Your task to perform on an android device: change the clock display to digital Image 0: 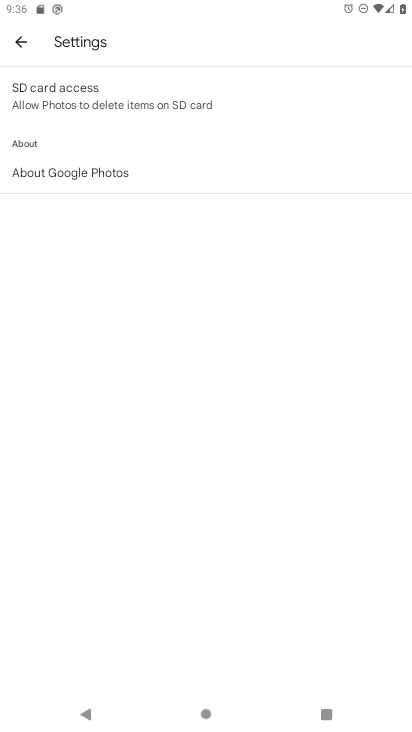
Step 0: press home button
Your task to perform on an android device: change the clock display to digital Image 1: 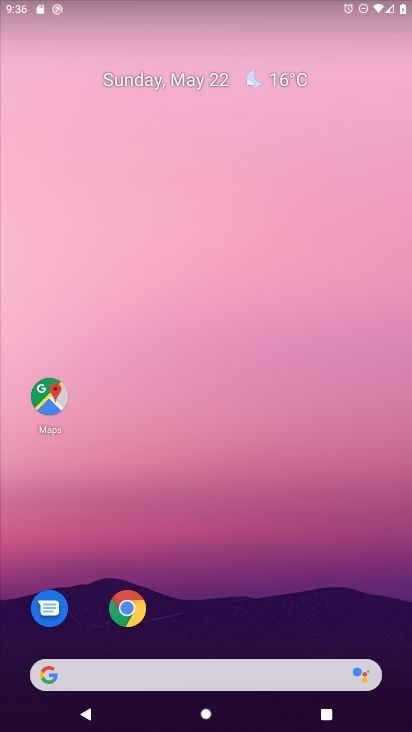
Step 1: drag from (241, 668) to (196, 133)
Your task to perform on an android device: change the clock display to digital Image 2: 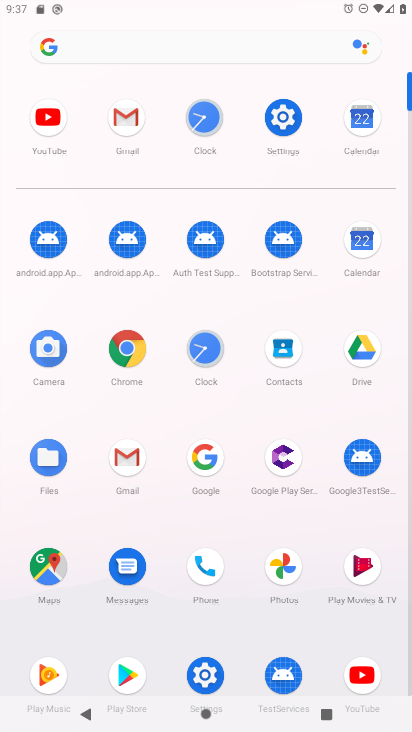
Step 2: click (205, 359)
Your task to perform on an android device: change the clock display to digital Image 3: 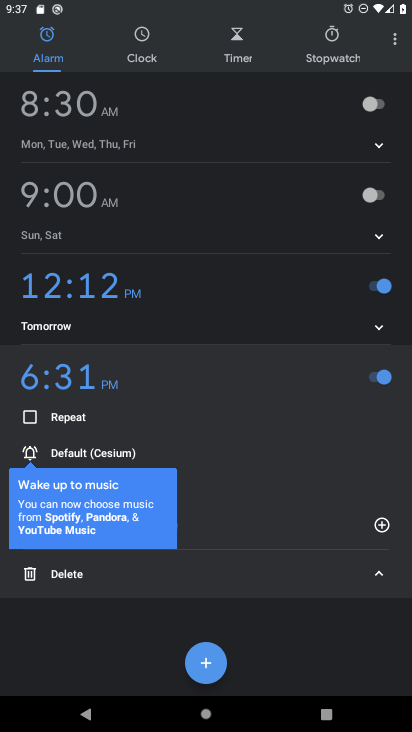
Step 3: click (396, 43)
Your task to perform on an android device: change the clock display to digital Image 4: 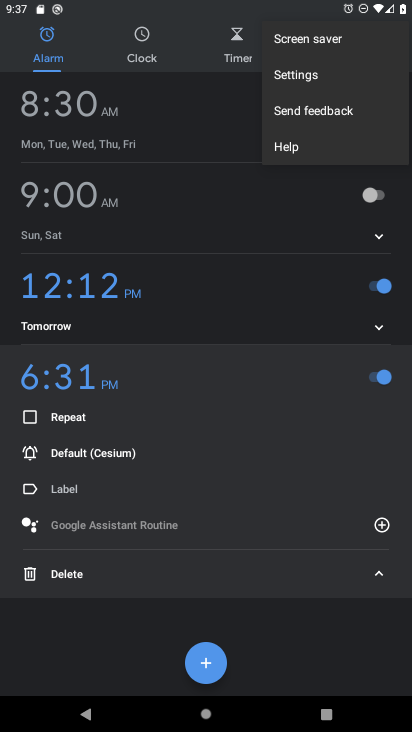
Step 4: click (301, 76)
Your task to perform on an android device: change the clock display to digital Image 5: 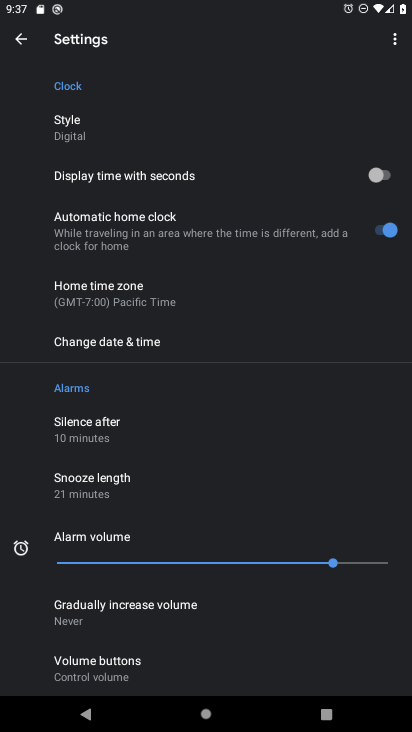
Step 5: task complete